Your task to perform on an android device: open app "PlayWell" Image 0: 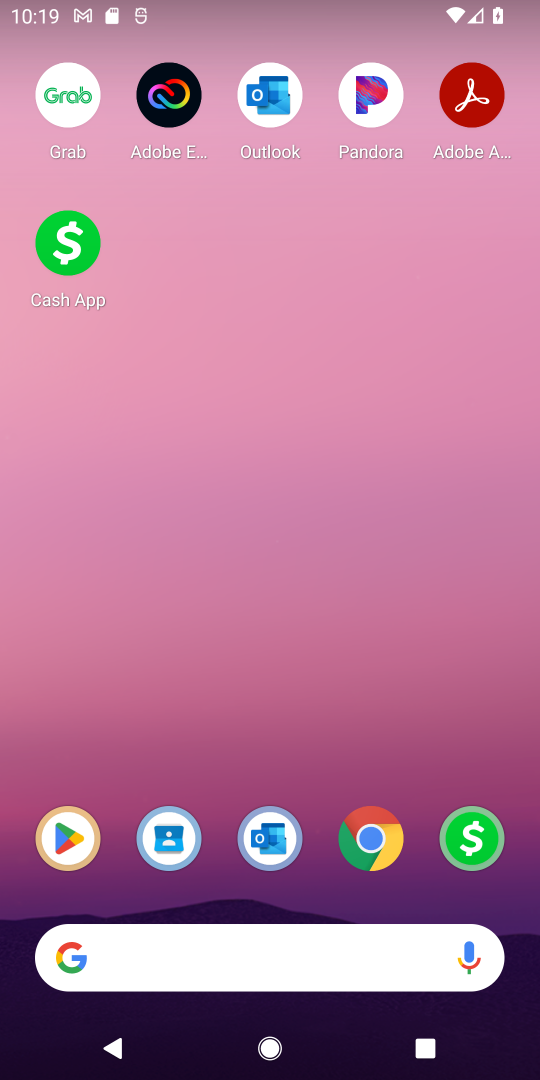
Step 0: click (80, 829)
Your task to perform on an android device: open app "PlayWell" Image 1: 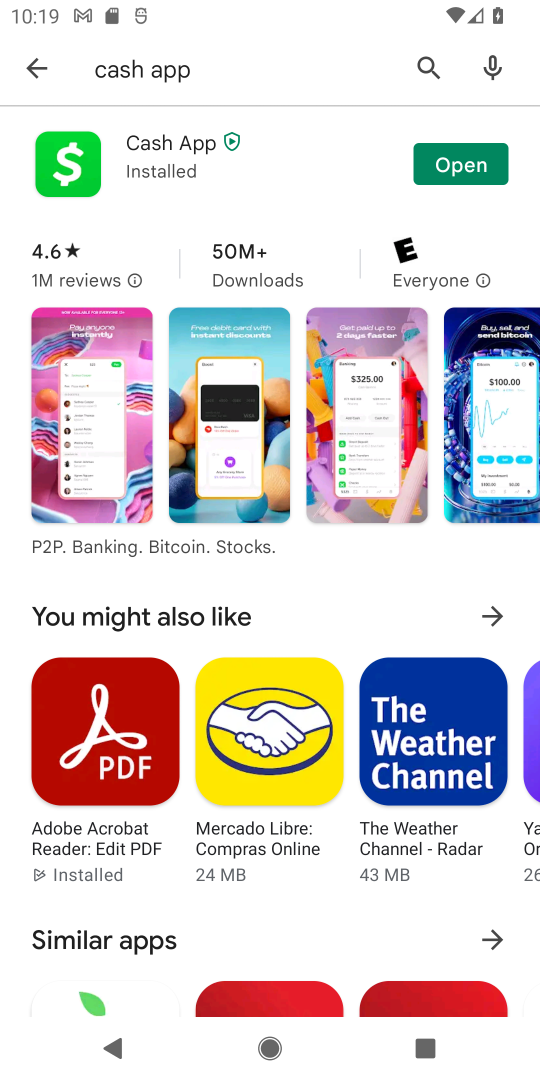
Step 1: click (238, 82)
Your task to perform on an android device: open app "PlayWell" Image 2: 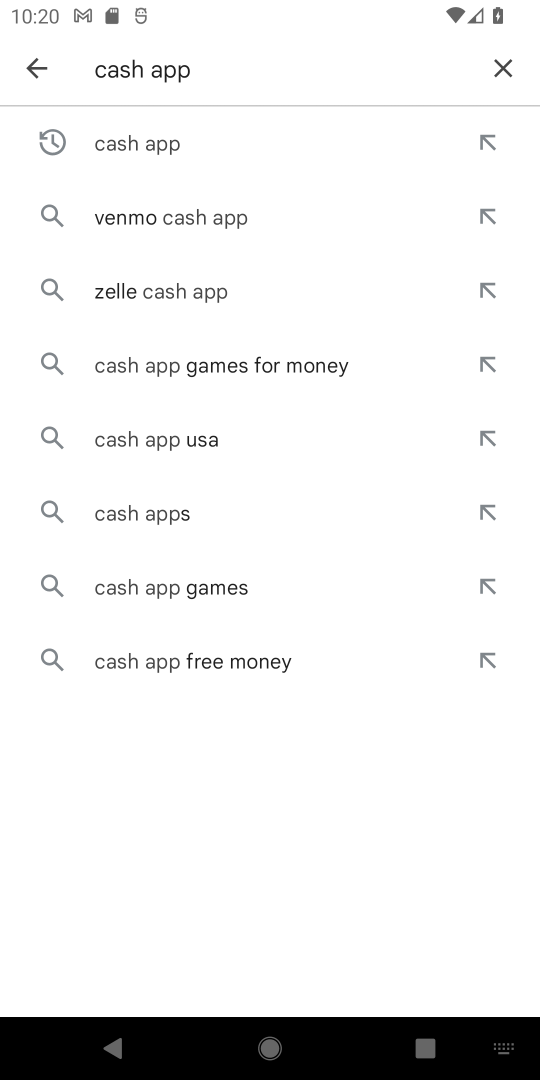
Step 2: click (507, 62)
Your task to perform on an android device: open app "PlayWell" Image 3: 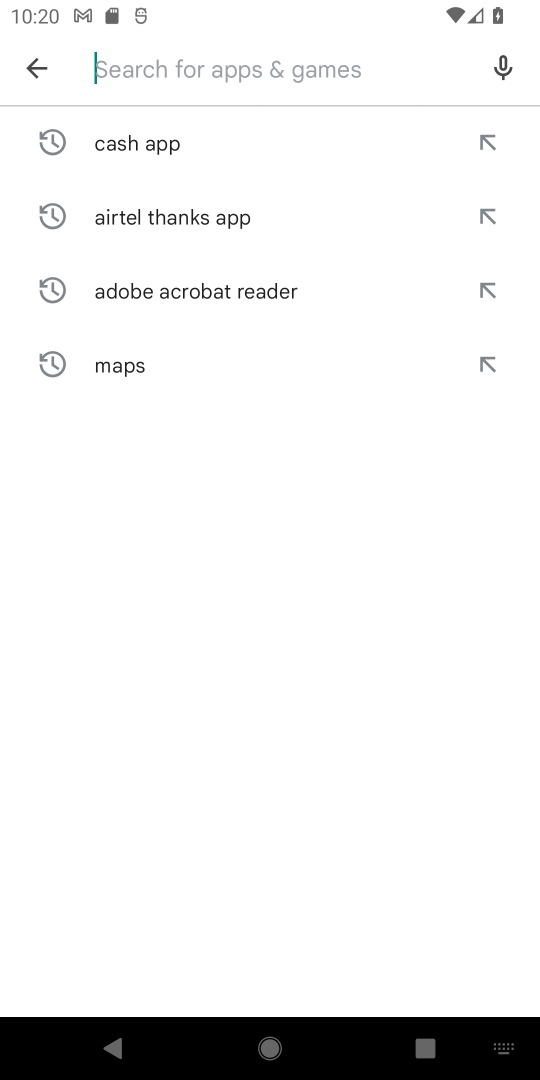
Step 3: type "PlayWell"
Your task to perform on an android device: open app "PlayWell" Image 4: 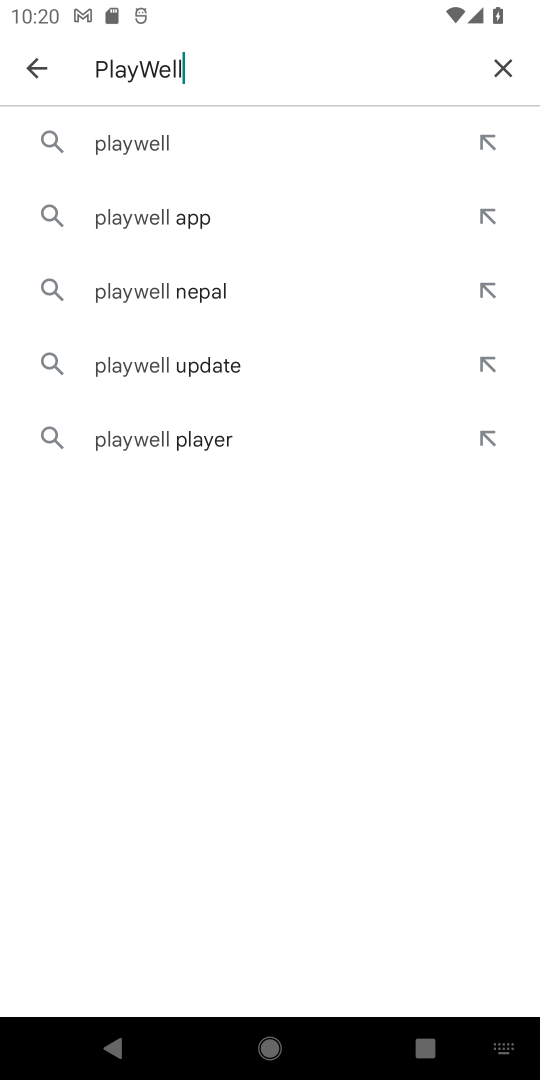
Step 4: click (156, 137)
Your task to perform on an android device: open app "PlayWell" Image 5: 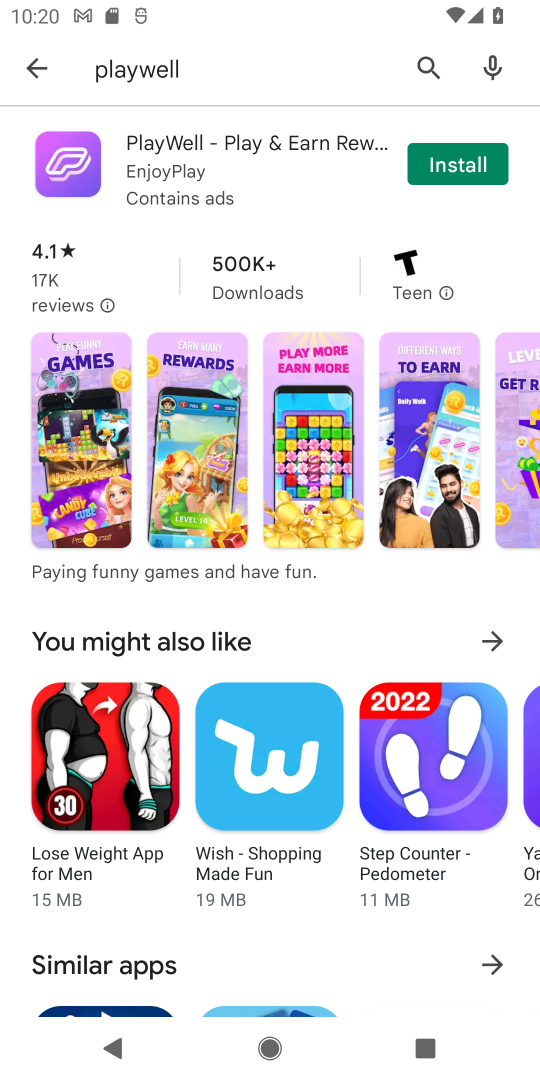
Step 5: task complete